Your task to perform on an android device: toggle improve location accuracy Image 0: 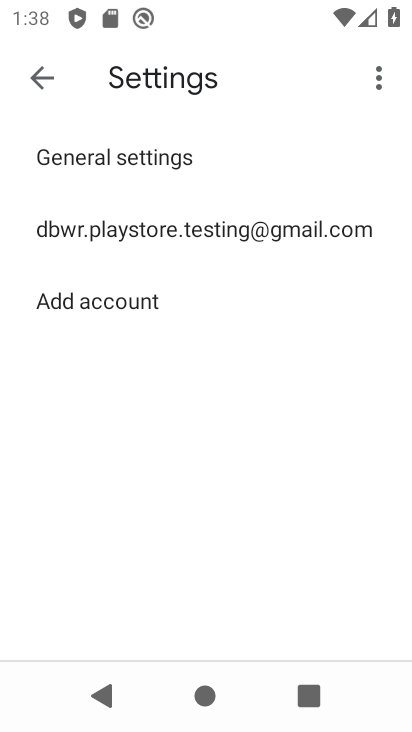
Step 0: click (165, 230)
Your task to perform on an android device: toggle improve location accuracy Image 1: 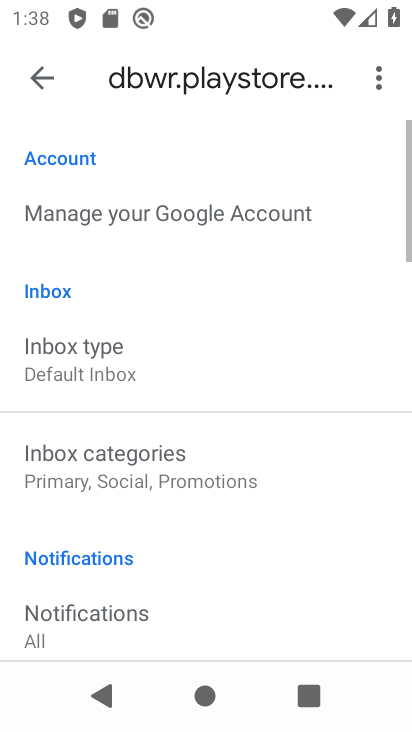
Step 1: drag from (203, 545) to (287, 212)
Your task to perform on an android device: toggle improve location accuracy Image 2: 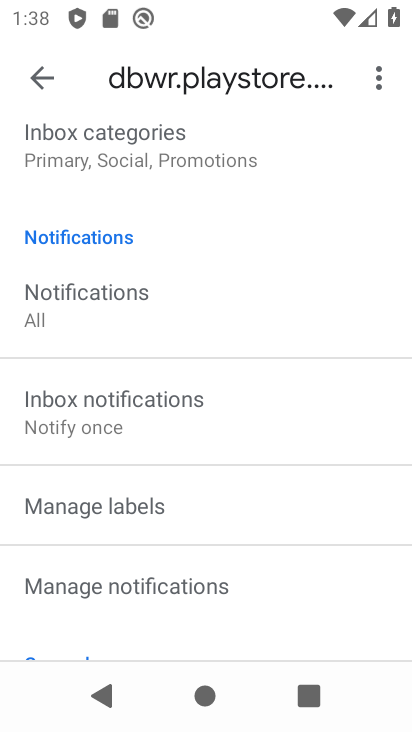
Step 2: drag from (194, 466) to (305, 57)
Your task to perform on an android device: toggle improve location accuracy Image 3: 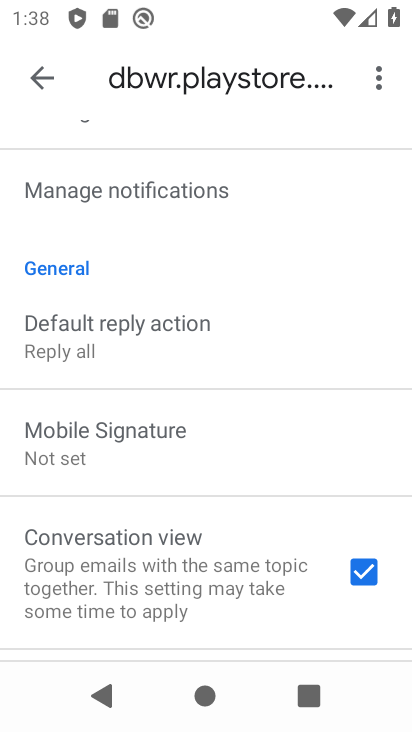
Step 3: press home button
Your task to perform on an android device: toggle improve location accuracy Image 4: 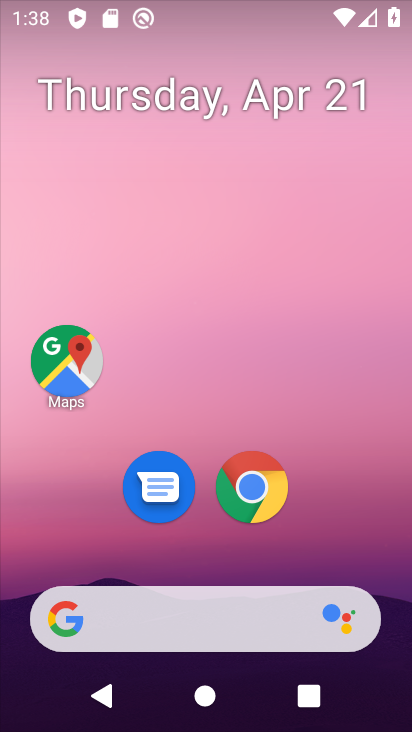
Step 4: drag from (202, 562) to (273, 2)
Your task to perform on an android device: toggle improve location accuracy Image 5: 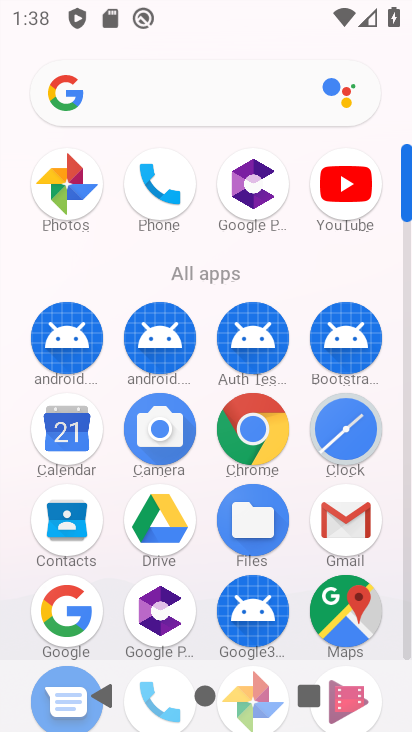
Step 5: drag from (222, 596) to (252, 119)
Your task to perform on an android device: toggle improve location accuracy Image 6: 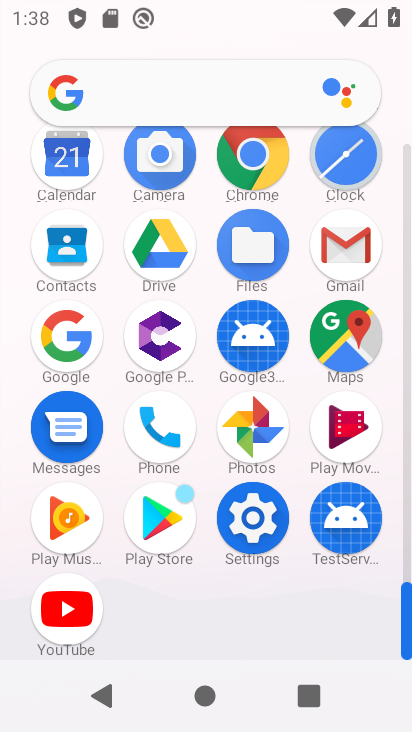
Step 6: click (249, 513)
Your task to perform on an android device: toggle improve location accuracy Image 7: 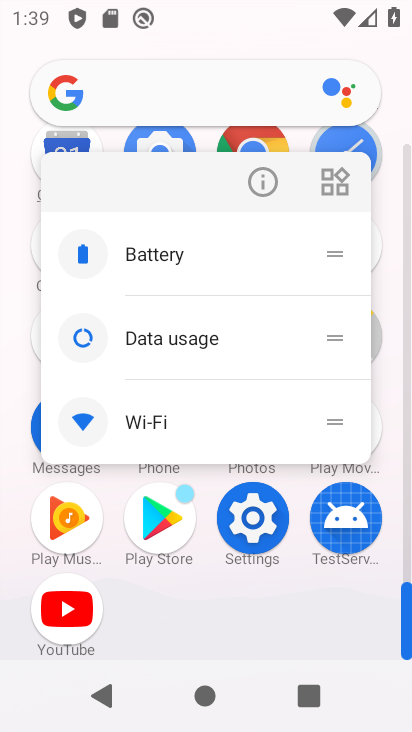
Step 7: click (257, 183)
Your task to perform on an android device: toggle improve location accuracy Image 8: 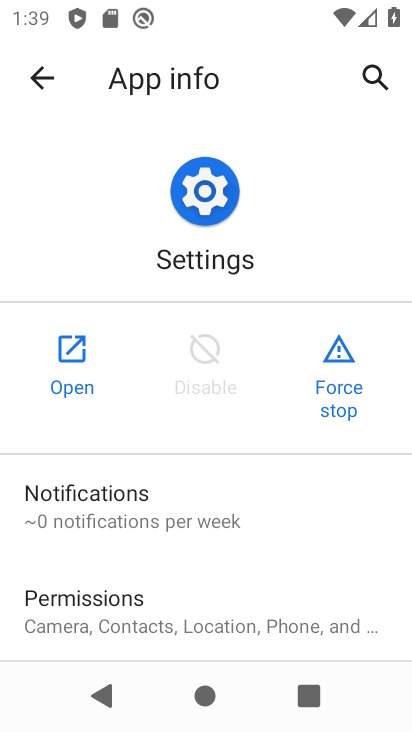
Step 8: click (77, 349)
Your task to perform on an android device: toggle improve location accuracy Image 9: 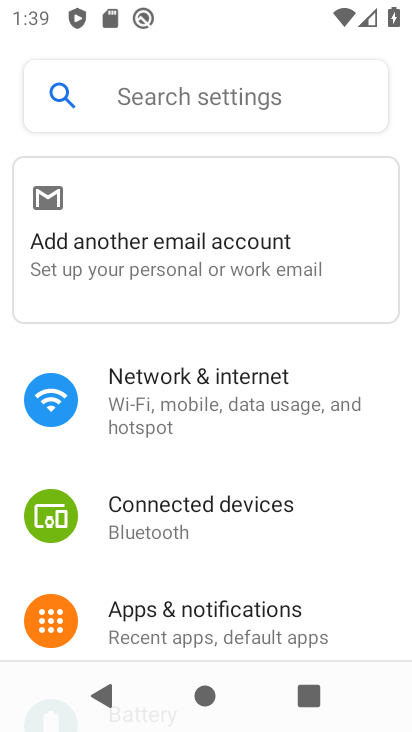
Step 9: drag from (199, 586) to (209, 226)
Your task to perform on an android device: toggle improve location accuracy Image 10: 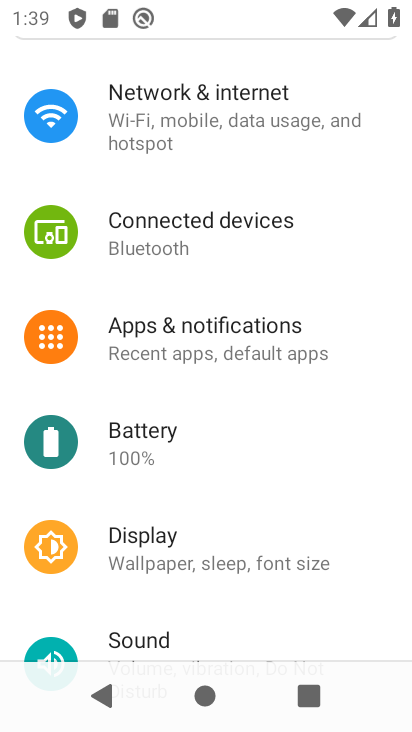
Step 10: drag from (177, 594) to (250, 69)
Your task to perform on an android device: toggle improve location accuracy Image 11: 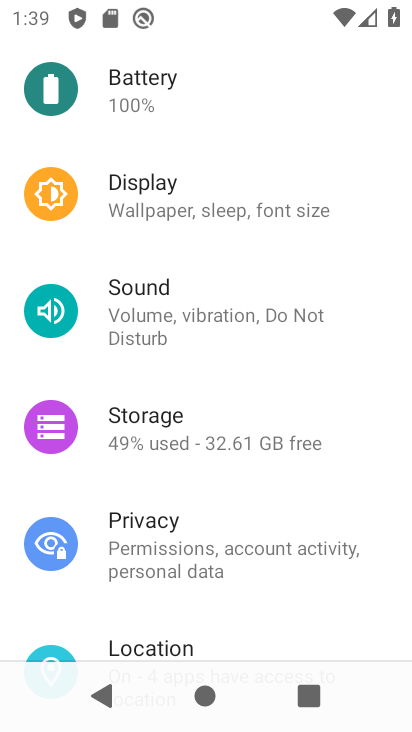
Step 11: drag from (191, 555) to (251, 236)
Your task to perform on an android device: toggle improve location accuracy Image 12: 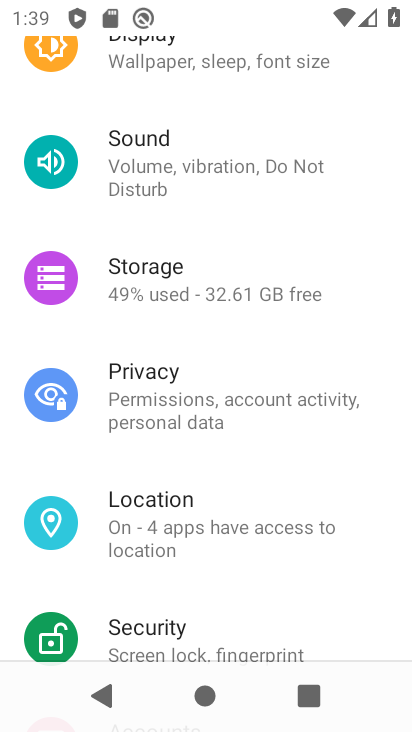
Step 12: click (195, 544)
Your task to perform on an android device: toggle improve location accuracy Image 13: 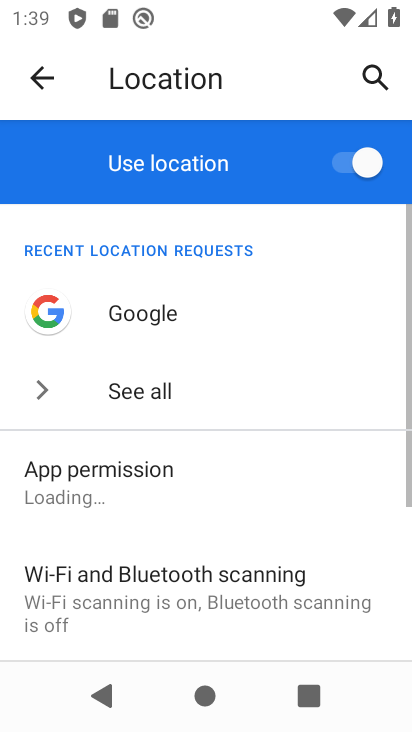
Step 13: drag from (160, 567) to (162, 0)
Your task to perform on an android device: toggle improve location accuracy Image 14: 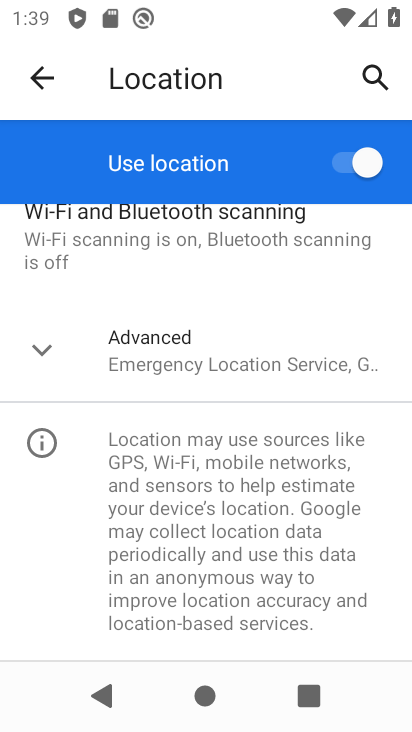
Step 14: click (125, 359)
Your task to perform on an android device: toggle improve location accuracy Image 15: 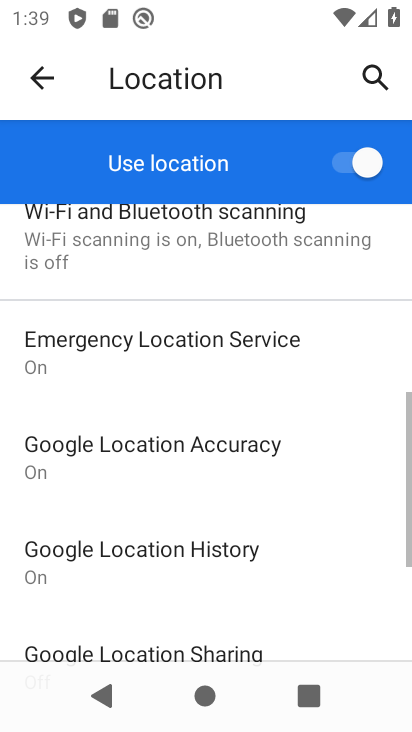
Step 15: drag from (213, 525) to (223, 244)
Your task to perform on an android device: toggle improve location accuracy Image 16: 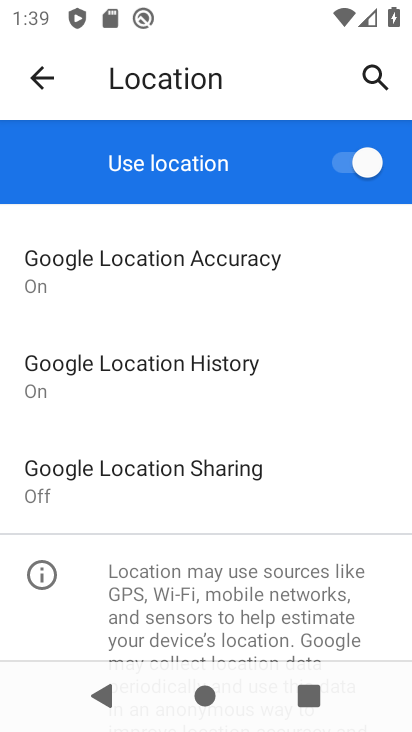
Step 16: click (224, 271)
Your task to perform on an android device: toggle improve location accuracy Image 17: 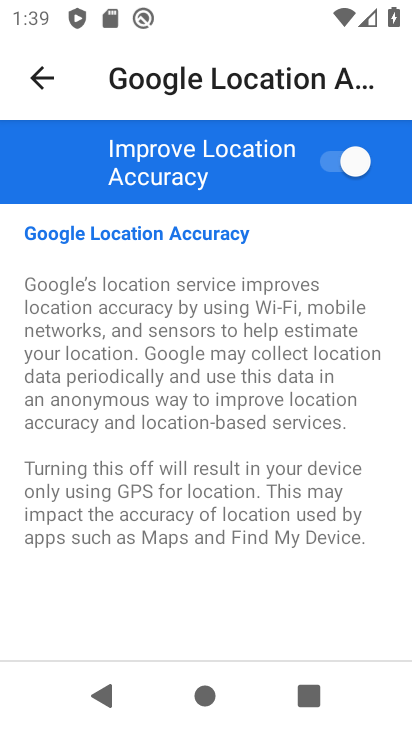
Step 17: drag from (153, 516) to (194, 111)
Your task to perform on an android device: toggle improve location accuracy Image 18: 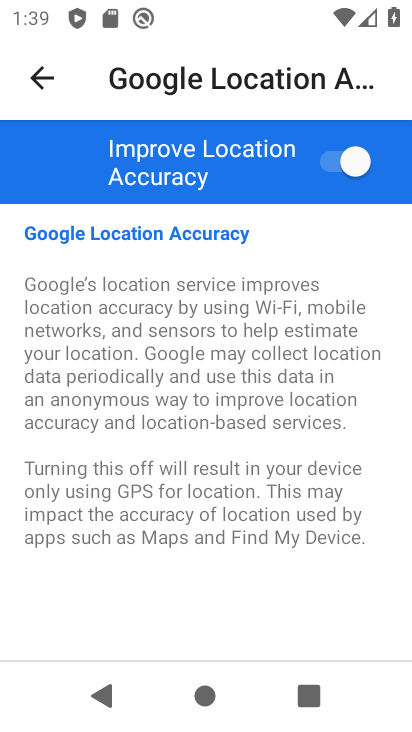
Step 18: click (327, 147)
Your task to perform on an android device: toggle improve location accuracy Image 19: 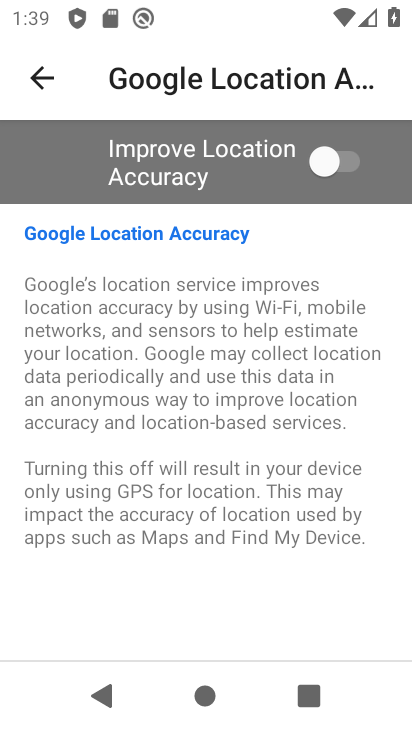
Step 19: task complete